Your task to perform on an android device: Open maps Image 0: 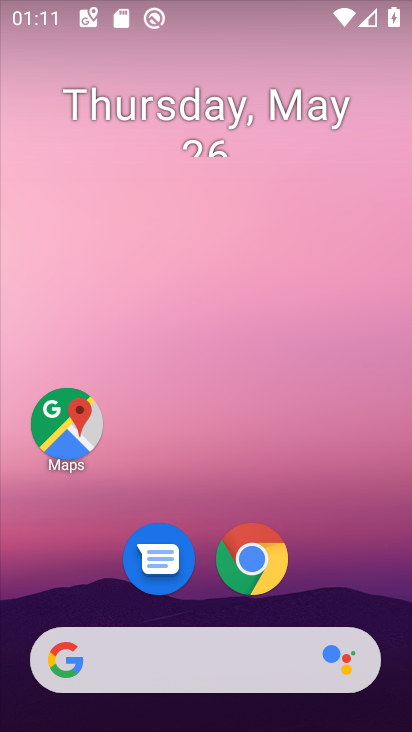
Step 0: click (63, 420)
Your task to perform on an android device: Open maps Image 1: 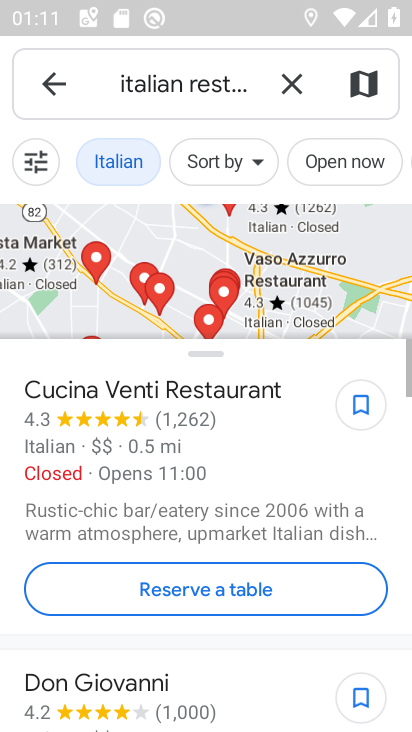
Step 1: click (297, 88)
Your task to perform on an android device: Open maps Image 2: 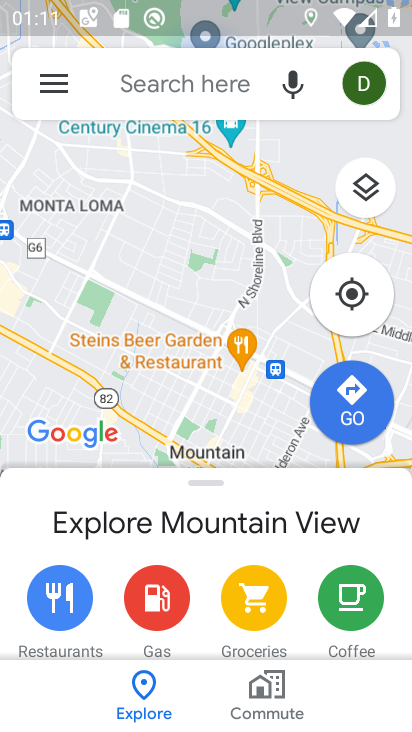
Step 2: task complete